Your task to perform on an android device: snooze an email in the gmail app Image 0: 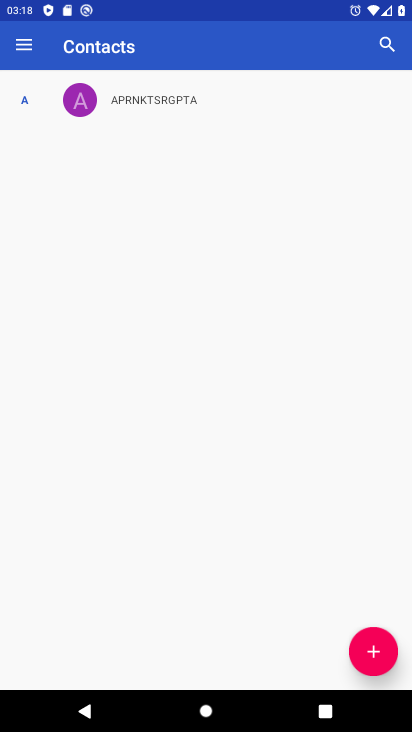
Step 0: press home button
Your task to perform on an android device: snooze an email in the gmail app Image 1: 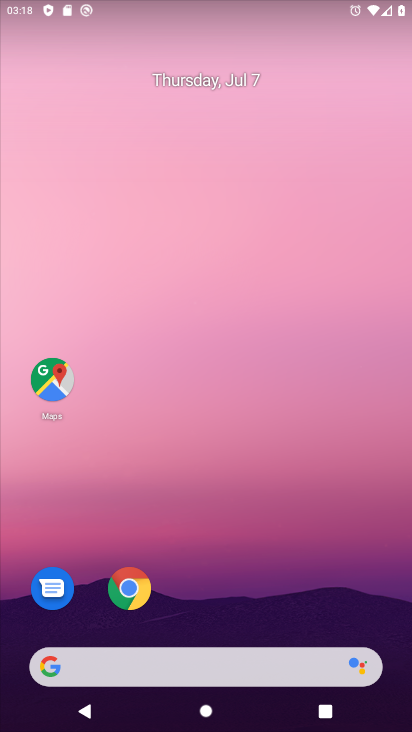
Step 1: drag from (112, 637) to (145, 280)
Your task to perform on an android device: snooze an email in the gmail app Image 2: 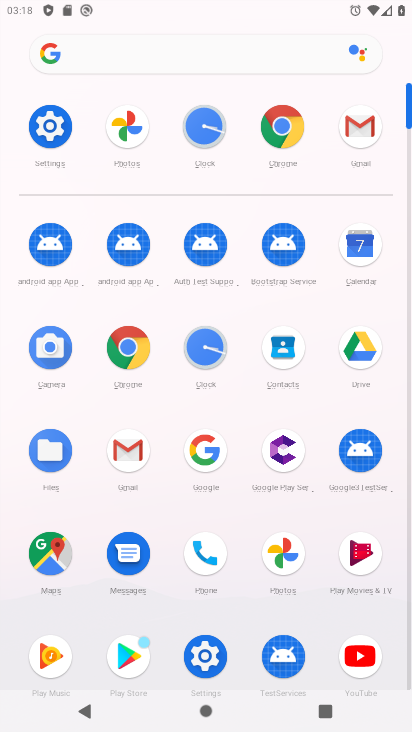
Step 2: click (349, 127)
Your task to perform on an android device: snooze an email in the gmail app Image 3: 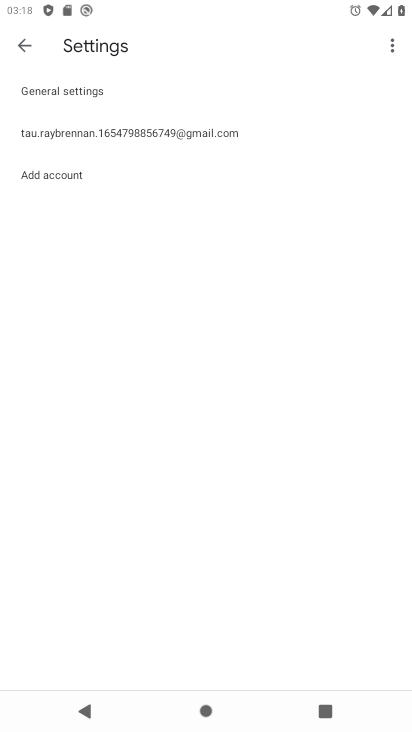
Step 3: click (22, 49)
Your task to perform on an android device: snooze an email in the gmail app Image 4: 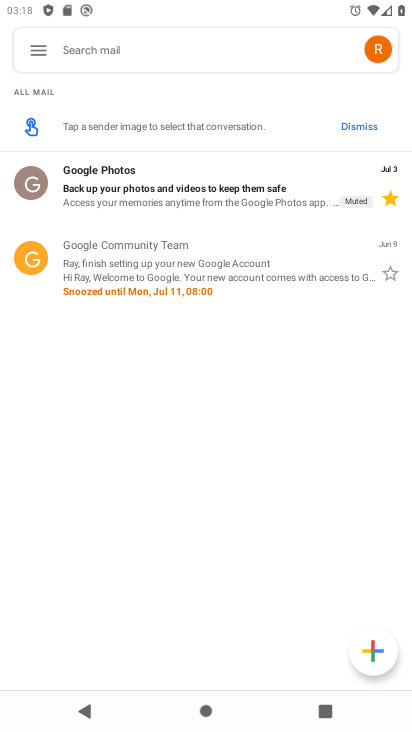
Step 4: click (71, 182)
Your task to perform on an android device: snooze an email in the gmail app Image 5: 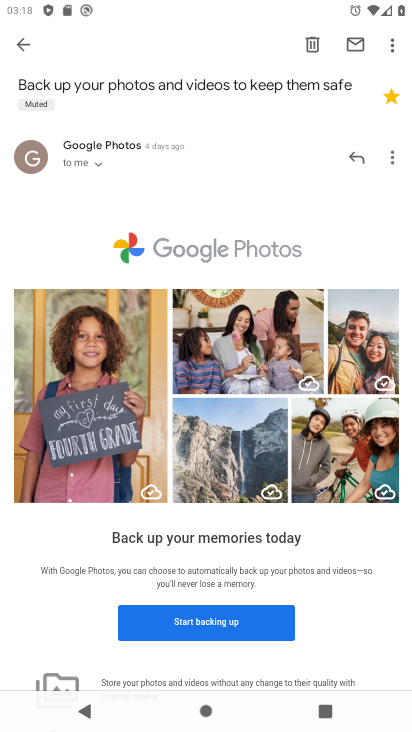
Step 5: click (393, 42)
Your task to perform on an android device: snooze an email in the gmail app Image 6: 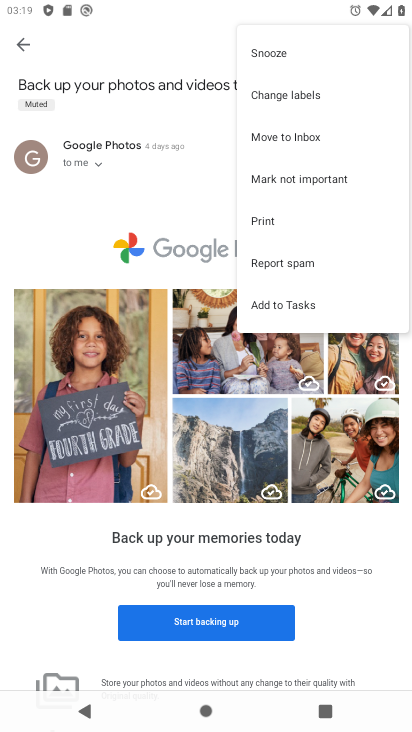
Step 6: click (288, 50)
Your task to perform on an android device: snooze an email in the gmail app Image 7: 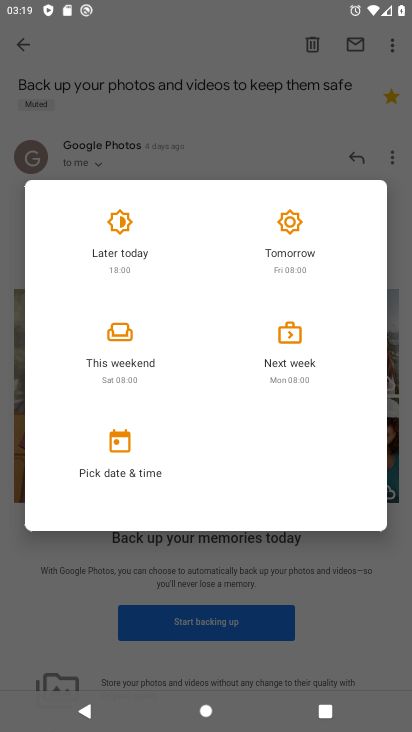
Step 7: click (118, 445)
Your task to perform on an android device: snooze an email in the gmail app Image 8: 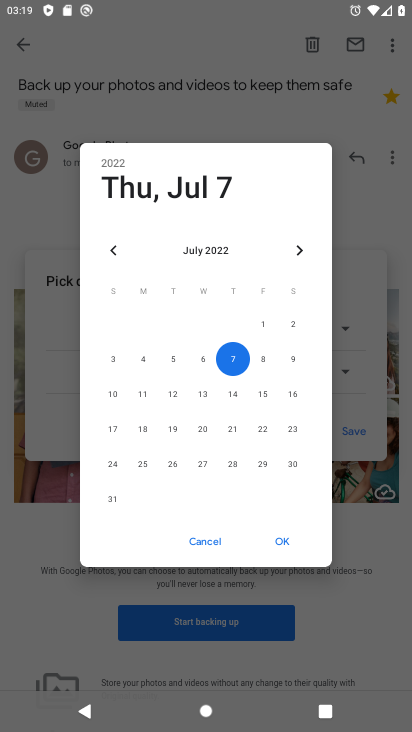
Step 8: click (199, 353)
Your task to perform on an android device: snooze an email in the gmail app Image 9: 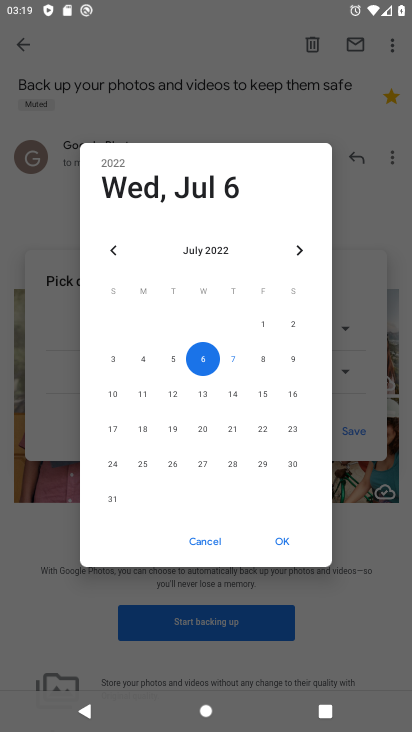
Step 9: click (235, 356)
Your task to perform on an android device: snooze an email in the gmail app Image 10: 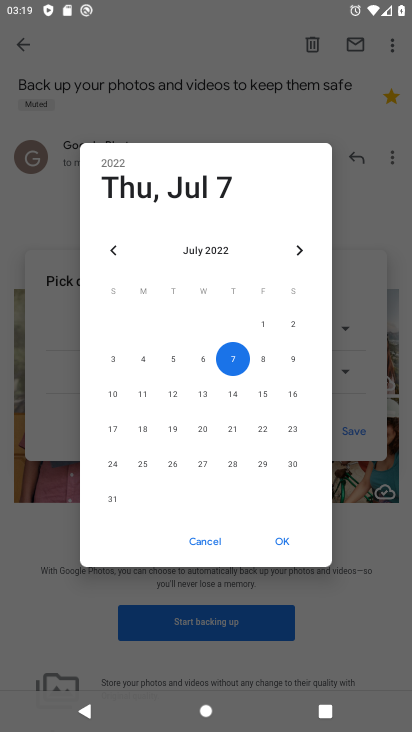
Step 10: click (263, 354)
Your task to perform on an android device: snooze an email in the gmail app Image 11: 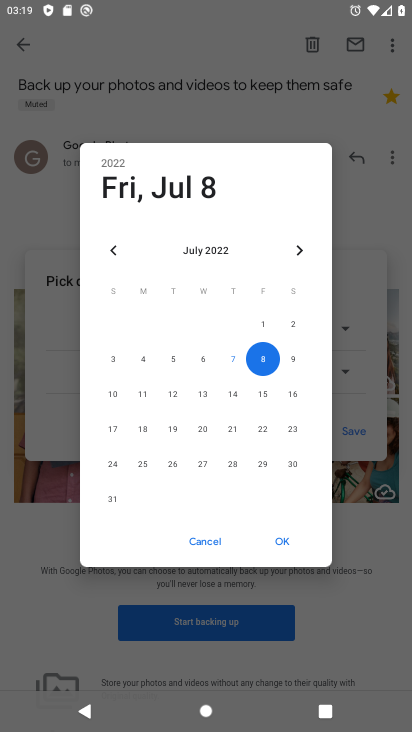
Step 11: click (280, 540)
Your task to perform on an android device: snooze an email in the gmail app Image 12: 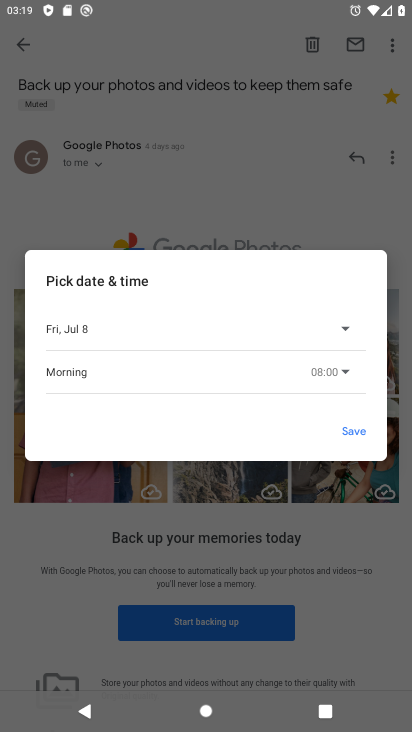
Step 12: click (362, 430)
Your task to perform on an android device: snooze an email in the gmail app Image 13: 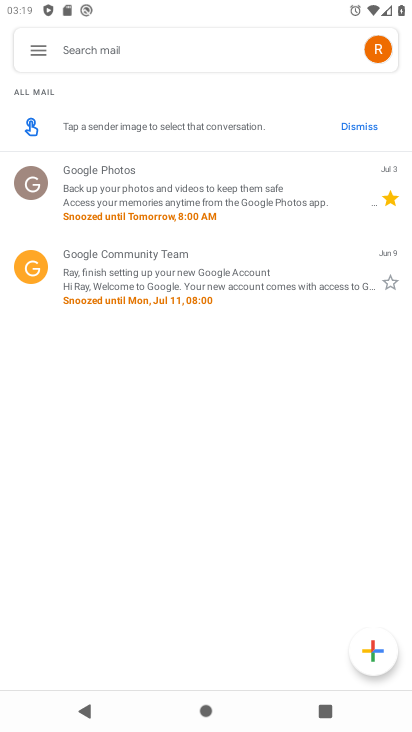
Step 13: task complete